Your task to perform on an android device: turn off notifications in google photos Image 0: 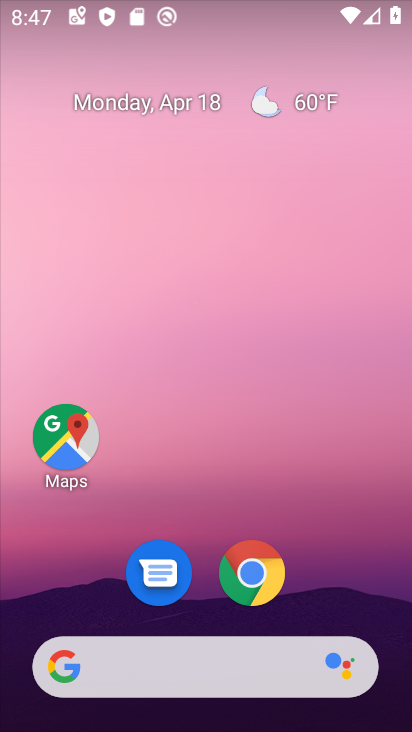
Step 0: drag from (339, 535) to (334, 67)
Your task to perform on an android device: turn off notifications in google photos Image 1: 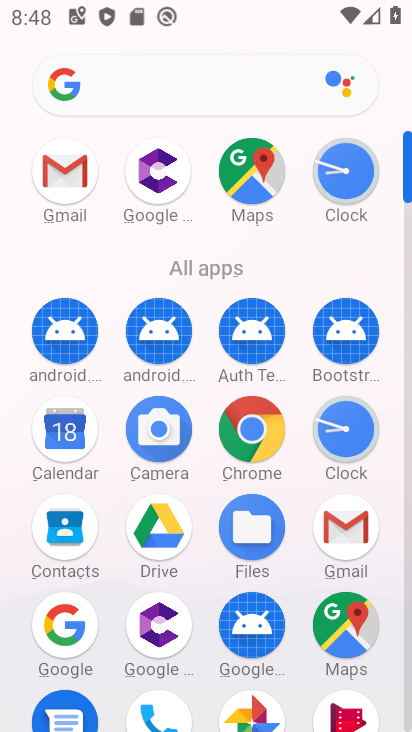
Step 1: drag from (201, 657) to (190, 376)
Your task to perform on an android device: turn off notifications in google photos Image 2: 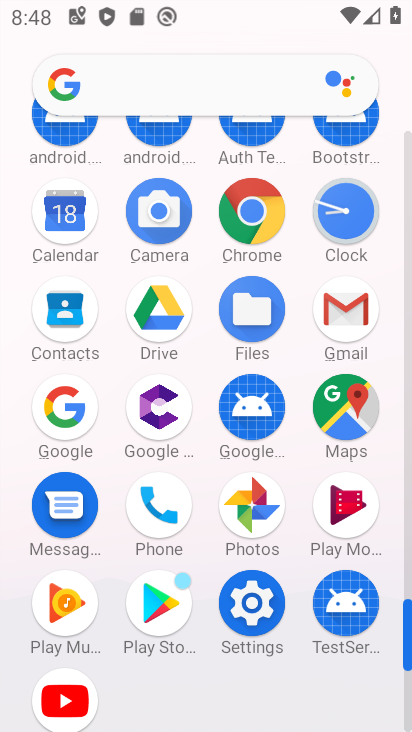
Step 2: click (261, 504)
Your task to perform on an android device: turn off notifications in google photos Image 3: 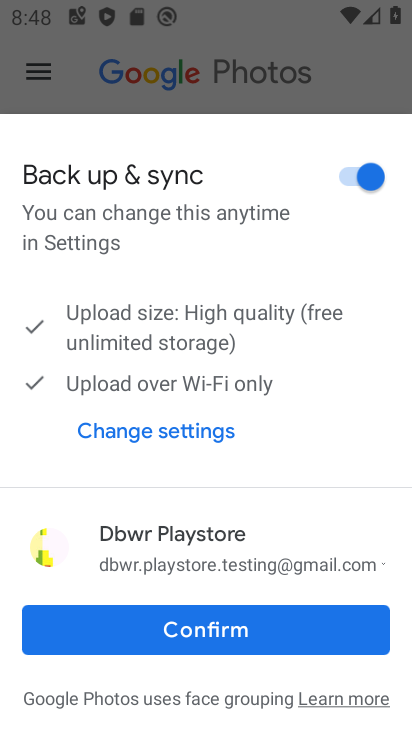
Step 3: click (219, 626)
Your task to perform on an android device: turn off notifications in google photos Image 4: 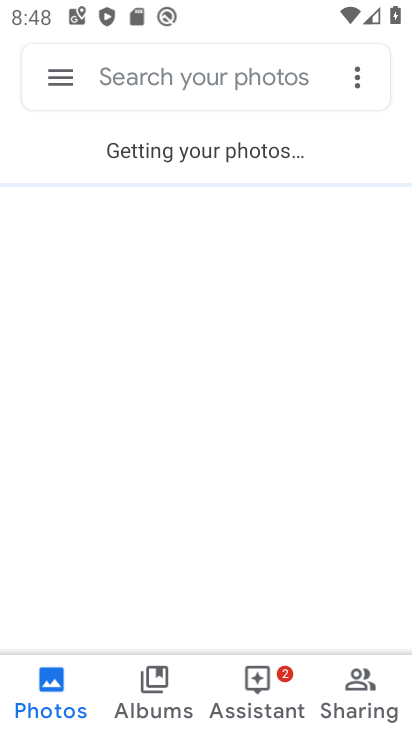
Step 4: click (90, 87)
Your task to perform on an android device: turn off notifications in google photos Image 5: 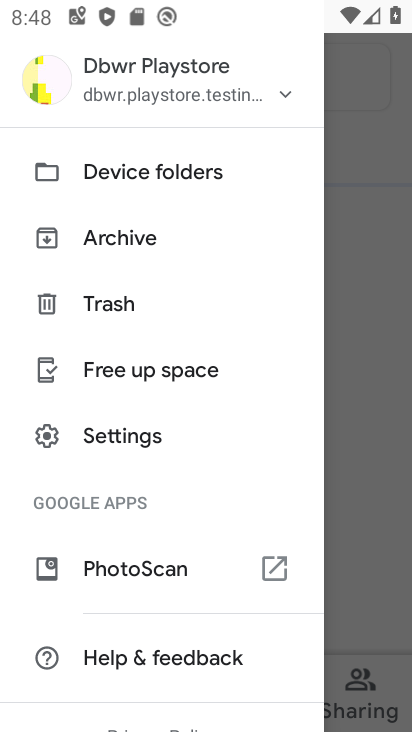
Step 5: click (130, 430)
Your task to perform on an android device: turn off notifications in google photos Image 6: 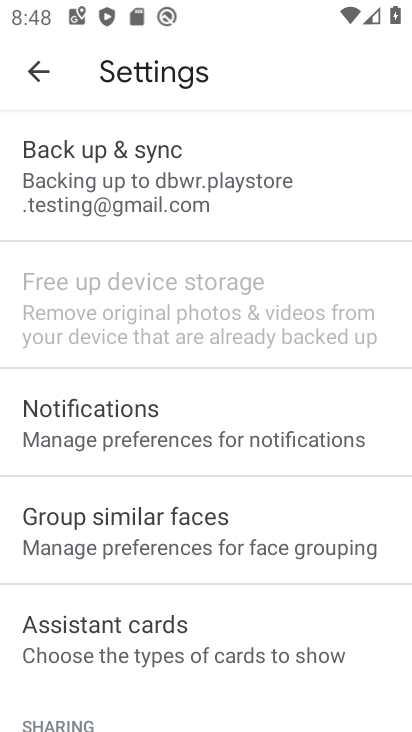
Step 6: click (135, 435)
Your task to perform on an android device: turn off notifications in google photos Image 7: 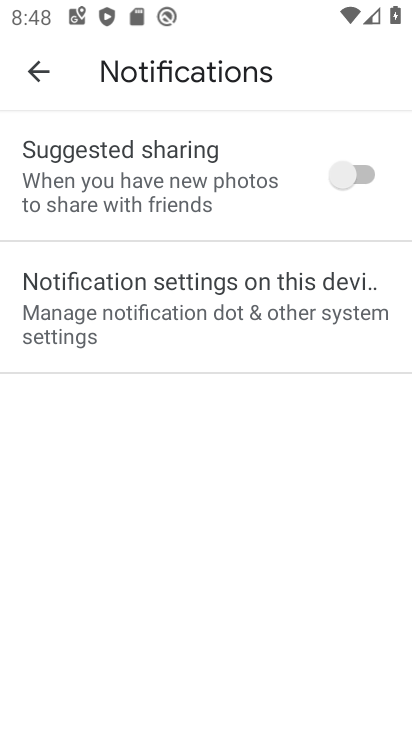
Step 7: click (171, 291)
Your task to perform on an android device: turn off notifications in google photos Image 8: 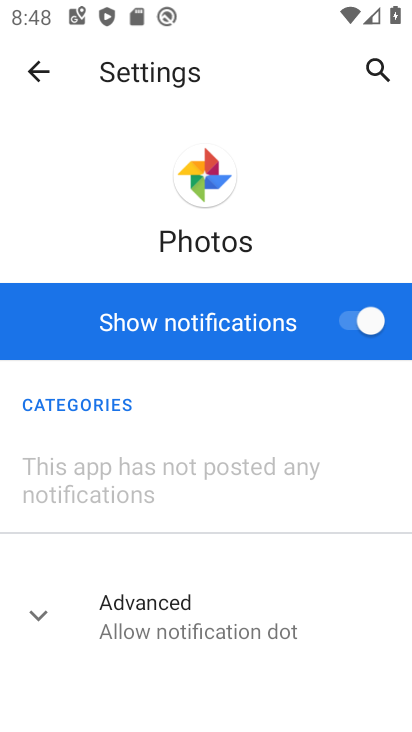
Step 8: click (369, 329)
Your task to perform on an android device: turn off notifications in google photos Image 9: 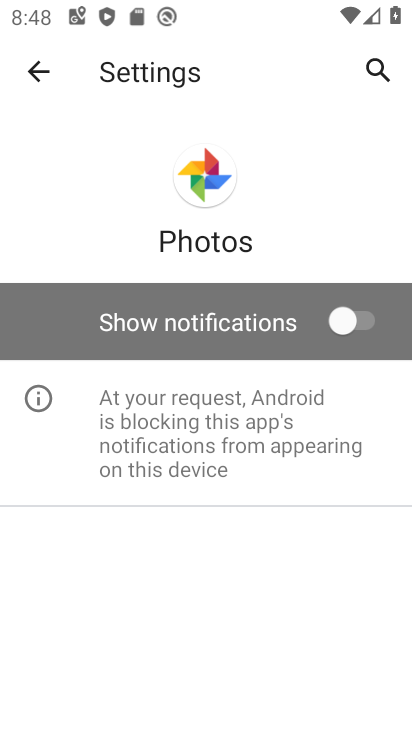
Step 9: task complete